Your task to perform on an android device: see sites visited before in the chrome app Image 0: 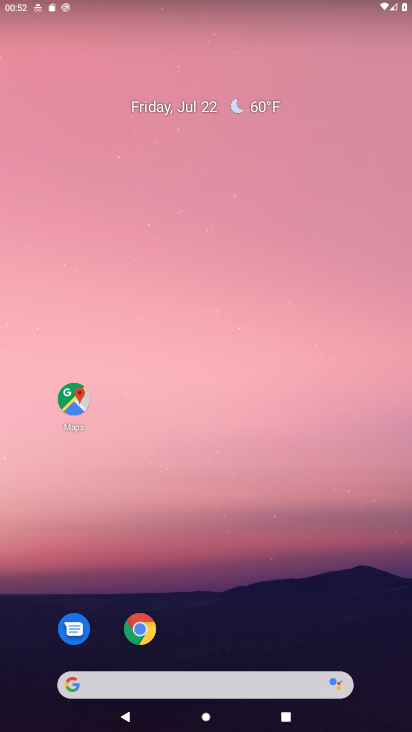
Step 0: drag from (219, 614) to (214, 261)
Your task to perform on an android device: see sites visited before in the chrome app Image 1: 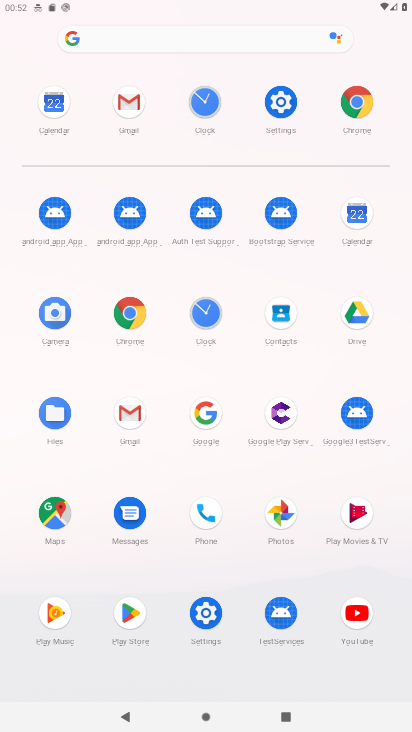
Step 1: click (130, 321)
Your task to perform on an android device: see sites visited before in the chrome app Image 2: 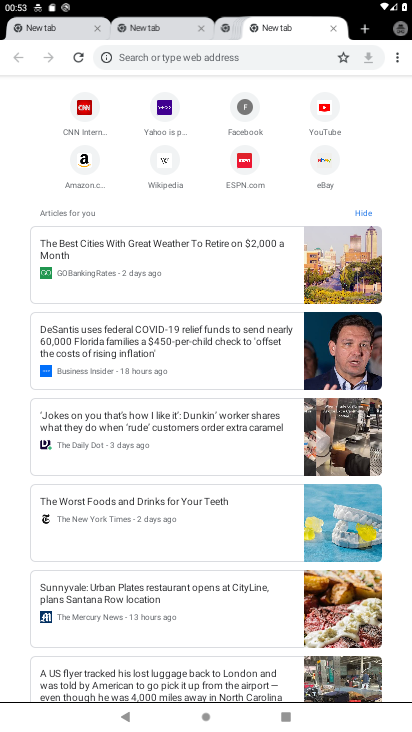
Step 2: click (411, 51)
Your task to perform on an android device: see sites visited before in the chrome app Image 3: 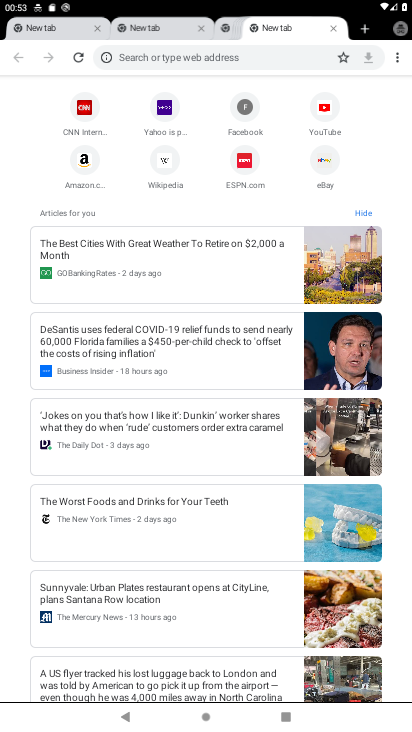
Step 3: click (403, 41)
Your task to perform on an android device: see sites visited before in the chrome app Image 4: 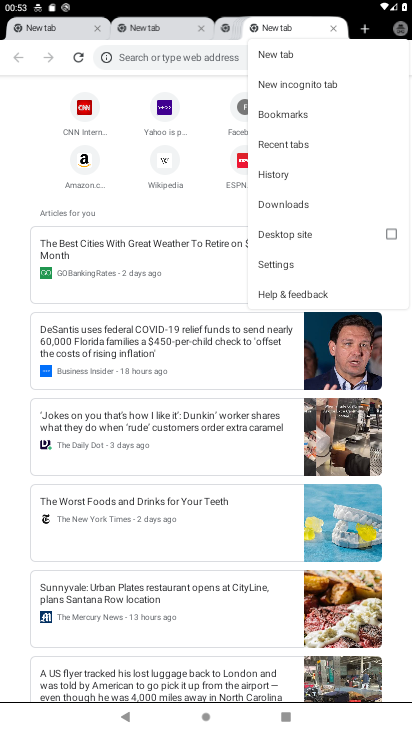
Step 4: click (292, 166)
Your task to perform on an android device: see sites visited before in the chrome app Image 5: 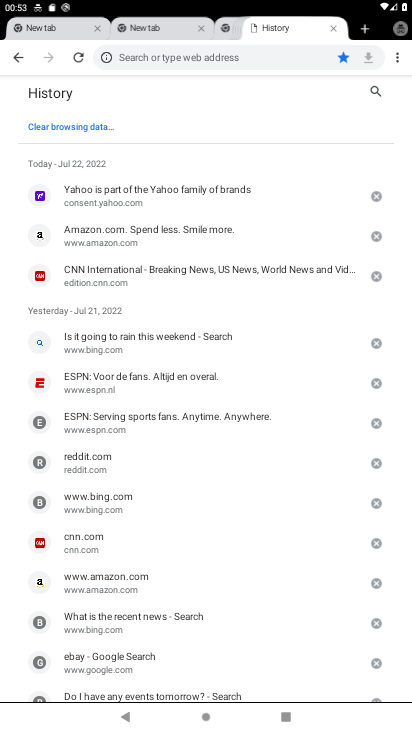
Step 5: task complete